Your task to perform on an android device: What's on my calendar tomorrow? Image 0: 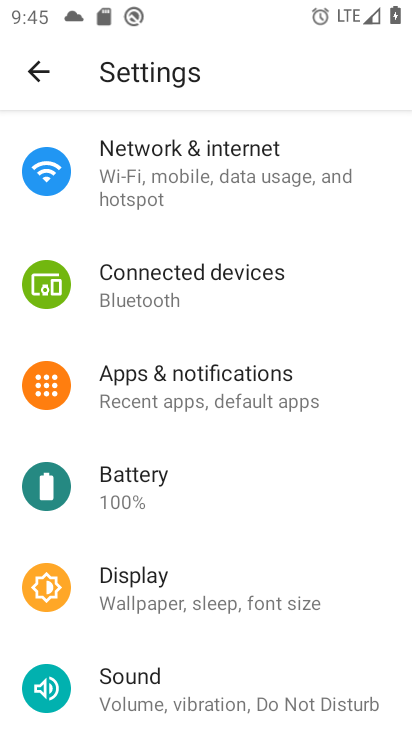
Step 0: press home button
Your task to perform on an android device: What's on my calendar tomorrow? Image 1: 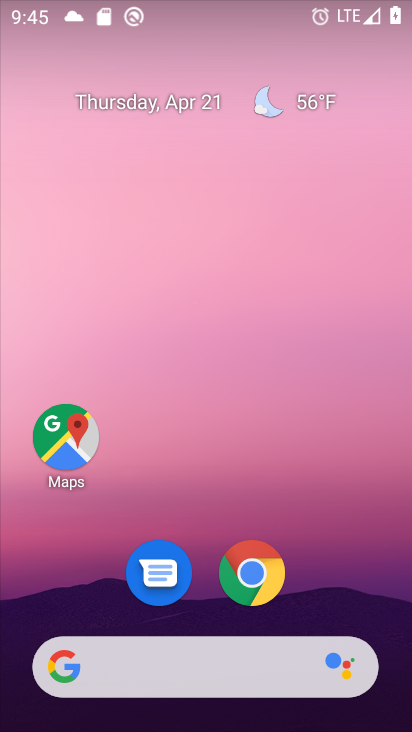
Step 1: drag from (183, 513) to (213, 0)
Your task to perform on an android device: What's on my calendar tomorrow? Image 2: 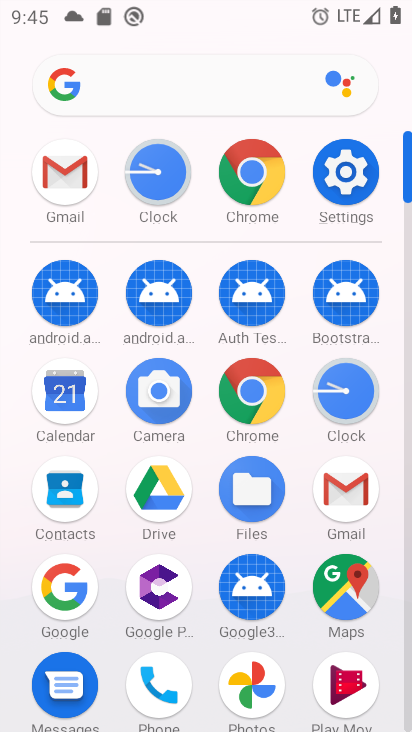
Step 2: click (67, 393)
Your task to perform on an android device: What's on my calendar tomorrow? Image 3: 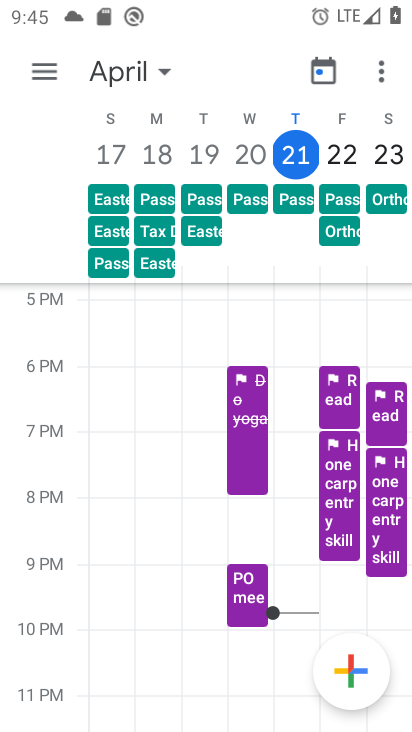
Step 3: click (327, 67)
Your task to perform on an android device: What's on my calendar tomorrow? Image 4: 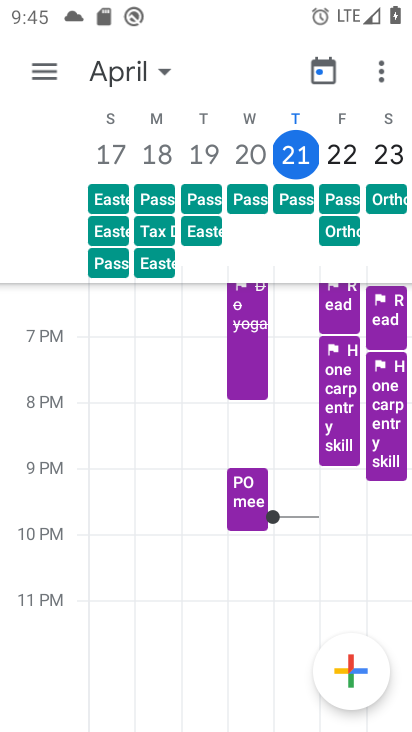
Step 4: click (162, 67)
Your task to perform on an android device: What's on my calendar tomorrow? Image 5: 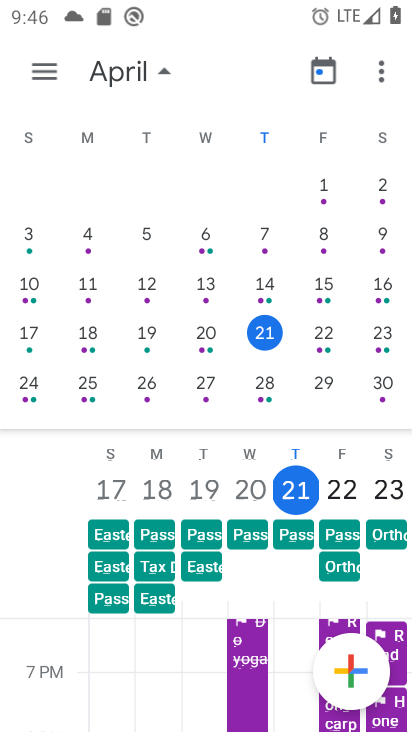
Step 5: click (324, 339)
Your task to perform on an android device: What's on my calendar tomorrow? Image 6: 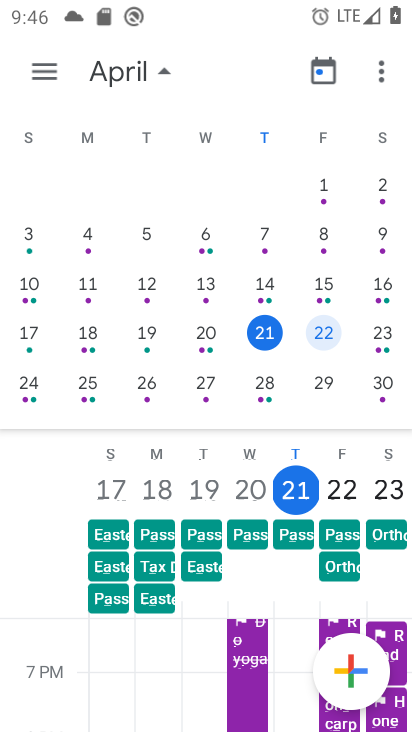
Step 6: click (40, 75)
Your task to perform on an android device: What's on my calendar tomorrow? Image 7: 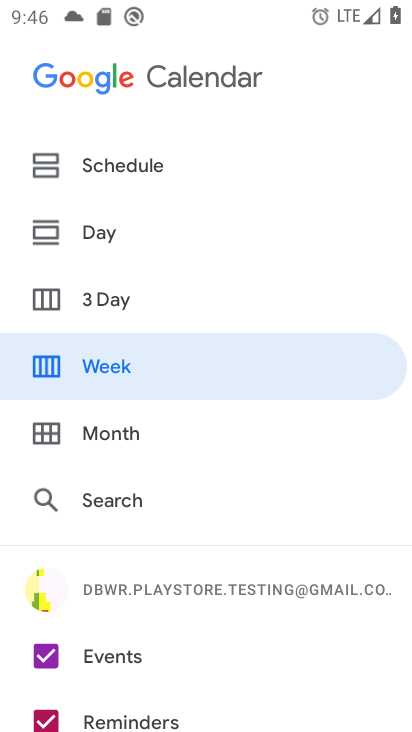
Step 7: click (133, 173)
Your task to perform on an android device: What's on my calendar tomorrow? Image 8: 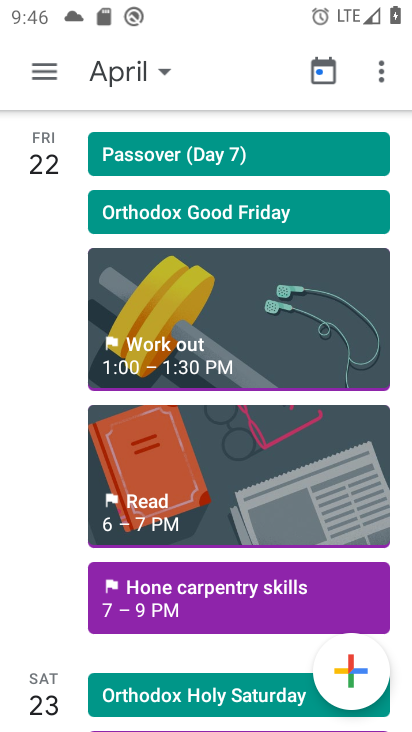
Step 8: task complete